Your task to perform on an android device: turn on improve location accuracy Image 0: 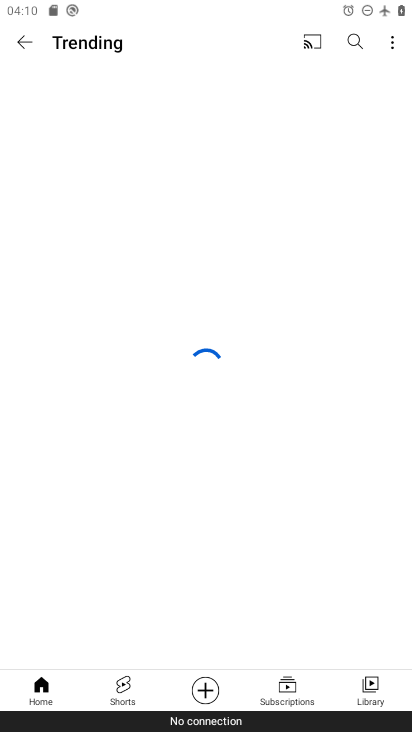
Step 0: press home button
Your task to perform on an android device: turn on improve location accuracy Image 1: 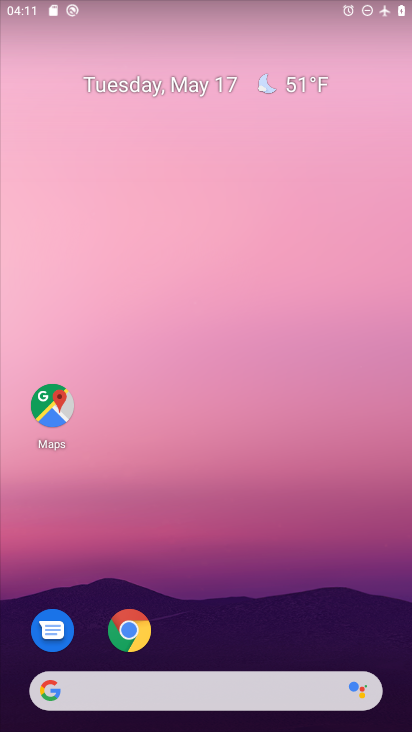
Step 1: drag from (291, 574) to (325, 0)
Your task to perform on an android device: turn on improve location accuracy Image 2: 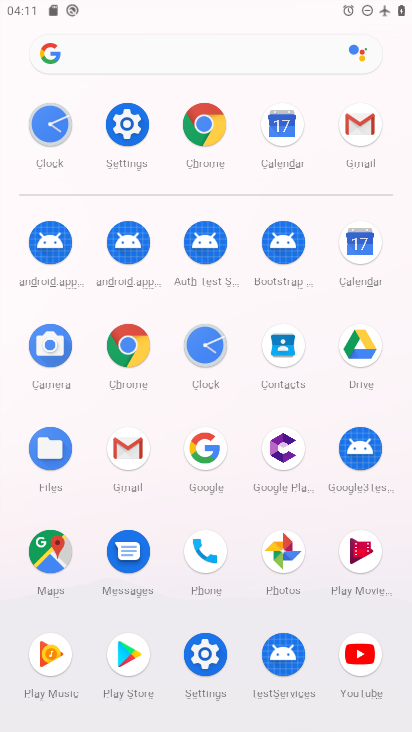
Step 2: click (127, 126)
Your task to perform on an android device: turn on improve location accuracy Image 3: 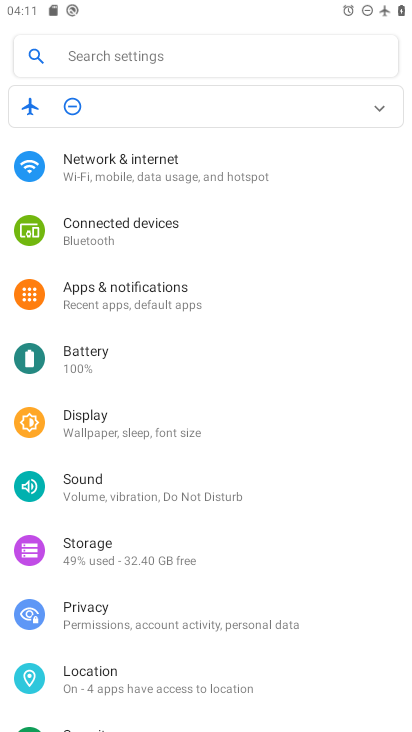
Step 3: click (99, 662)
Your task to perform on an android device: turn on improve location accuracy Image 4: 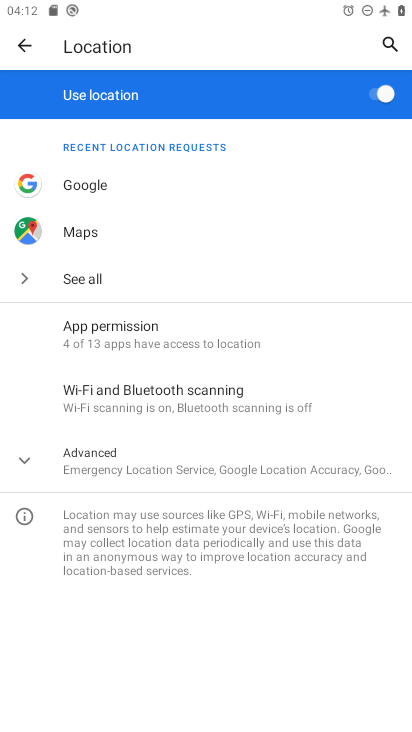
Step 4: click (179, 457)
Your task to perform on an android device: turn on improve location accuracy Image 5: 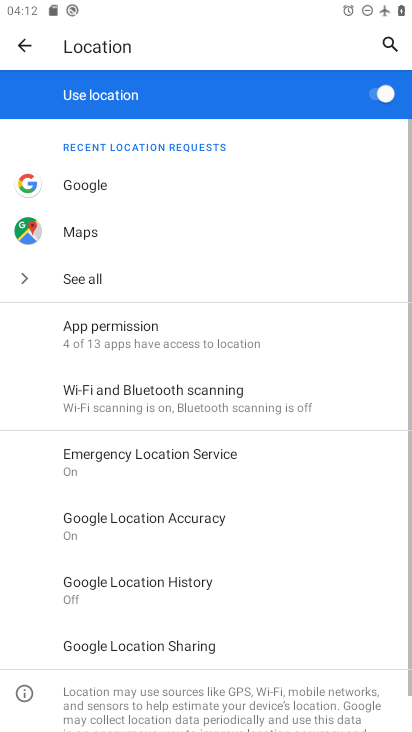
Step 5: click (168, 519)
Your task to perform on an android device: turn on improve location accuracy Image 6: 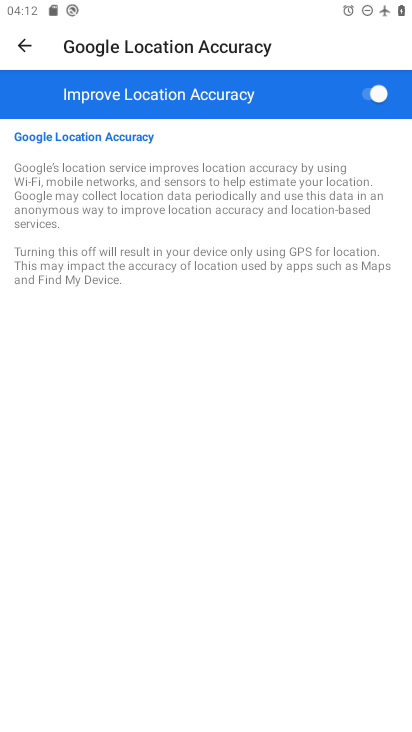
Step 6: click (371, 104)
Your task to perform on an android device: turn on improve location accuracy Image 7: 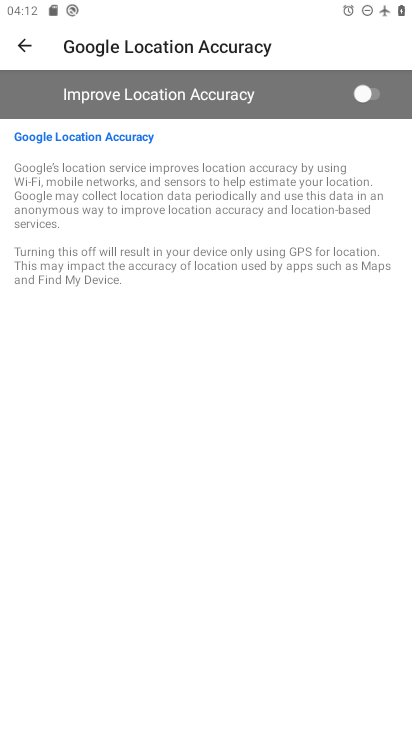
Step 7: task complete